Your task to perform on an android device: Open battery settings Image 0: 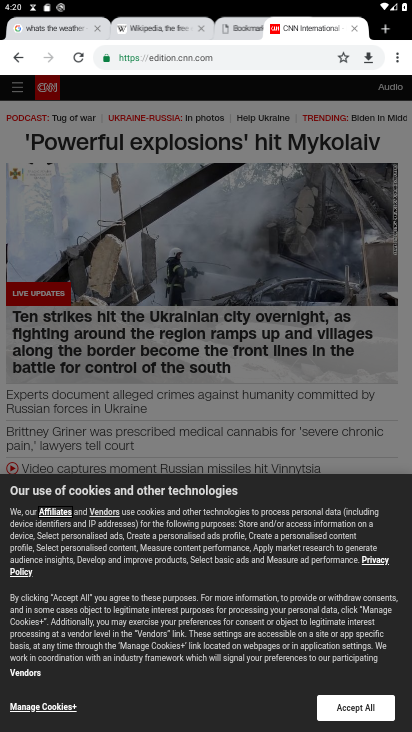
Step 0: press home button
Your task to perform on an android device: Open battery settings Image 1: 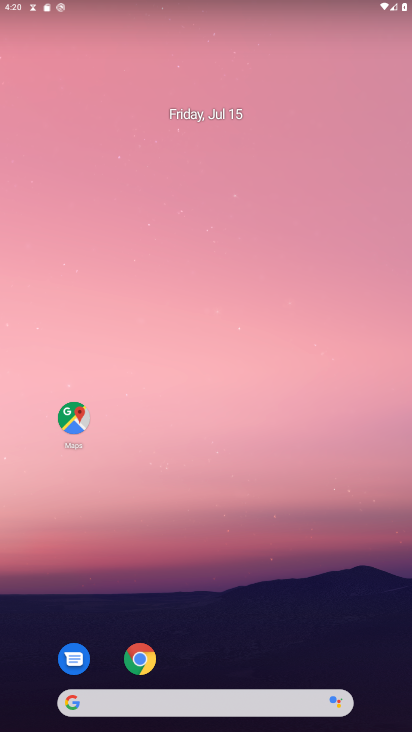
Step 1: drag from (283, 699) to (274, 43)
Your task to perform on an android device: Open battery settings Image 2: 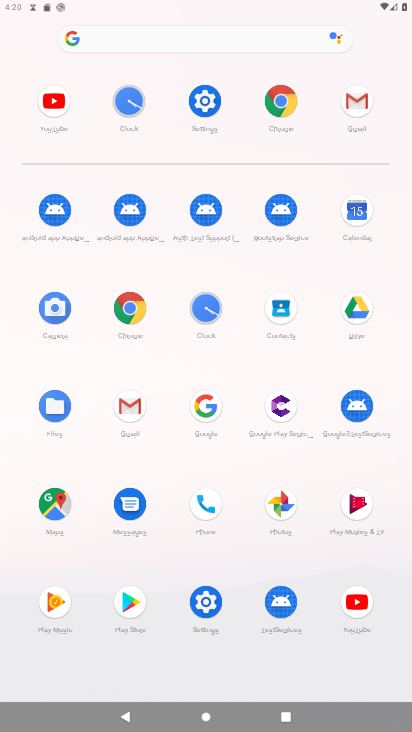
Step 2: click (210, 108)
Your task to perform on an android device: Open battery settings Image 3: 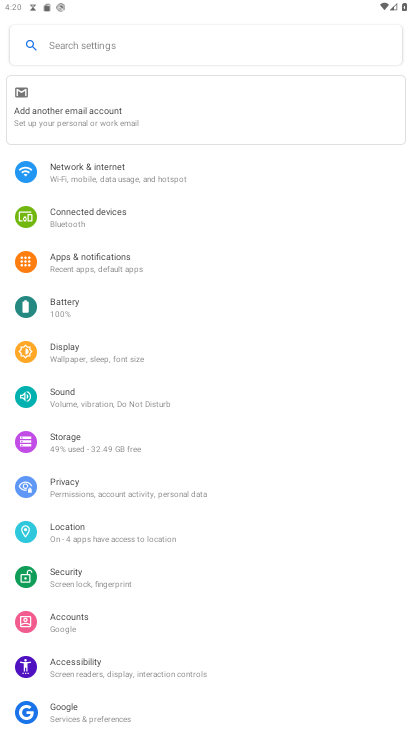
Step 3: click (77, 312)
Your task to perform on an android device: Open battery settings Image 4: 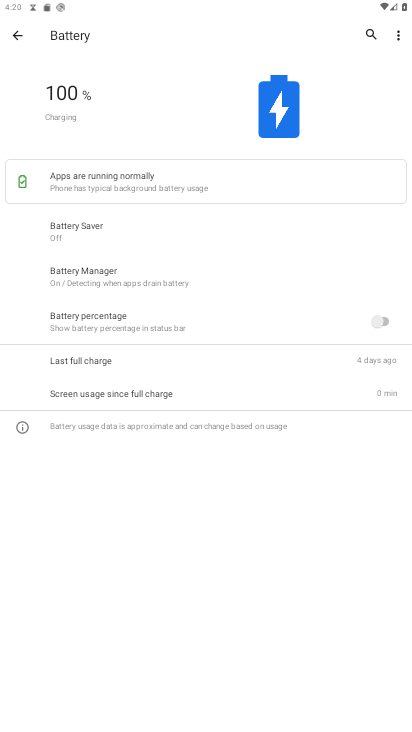
Step 4: task complete